Your task to perform on an android device: What's the weather going to be this weekend? Image 0: 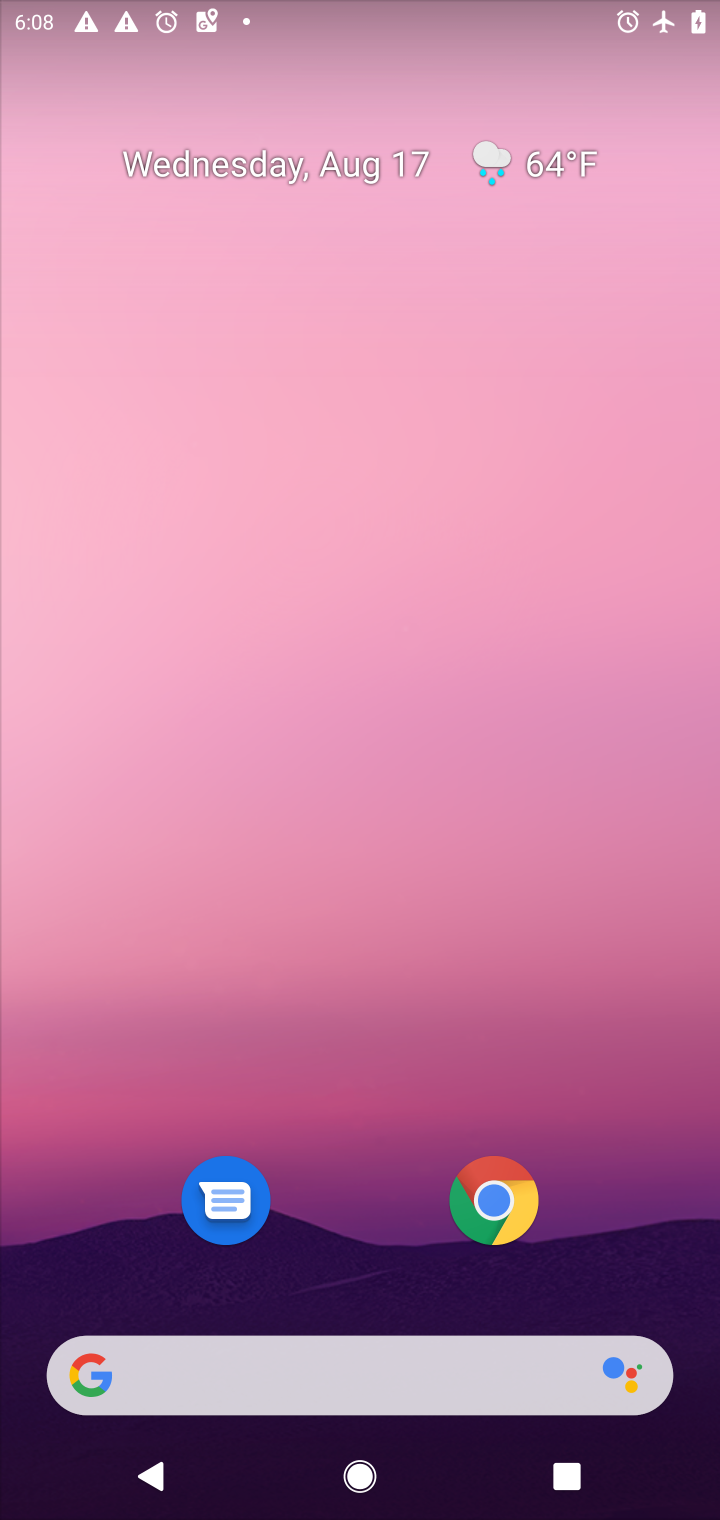
Step 0: click (494, 168)
Your task to perform on an android device: What's the weather going to be this weekend? Image 1: 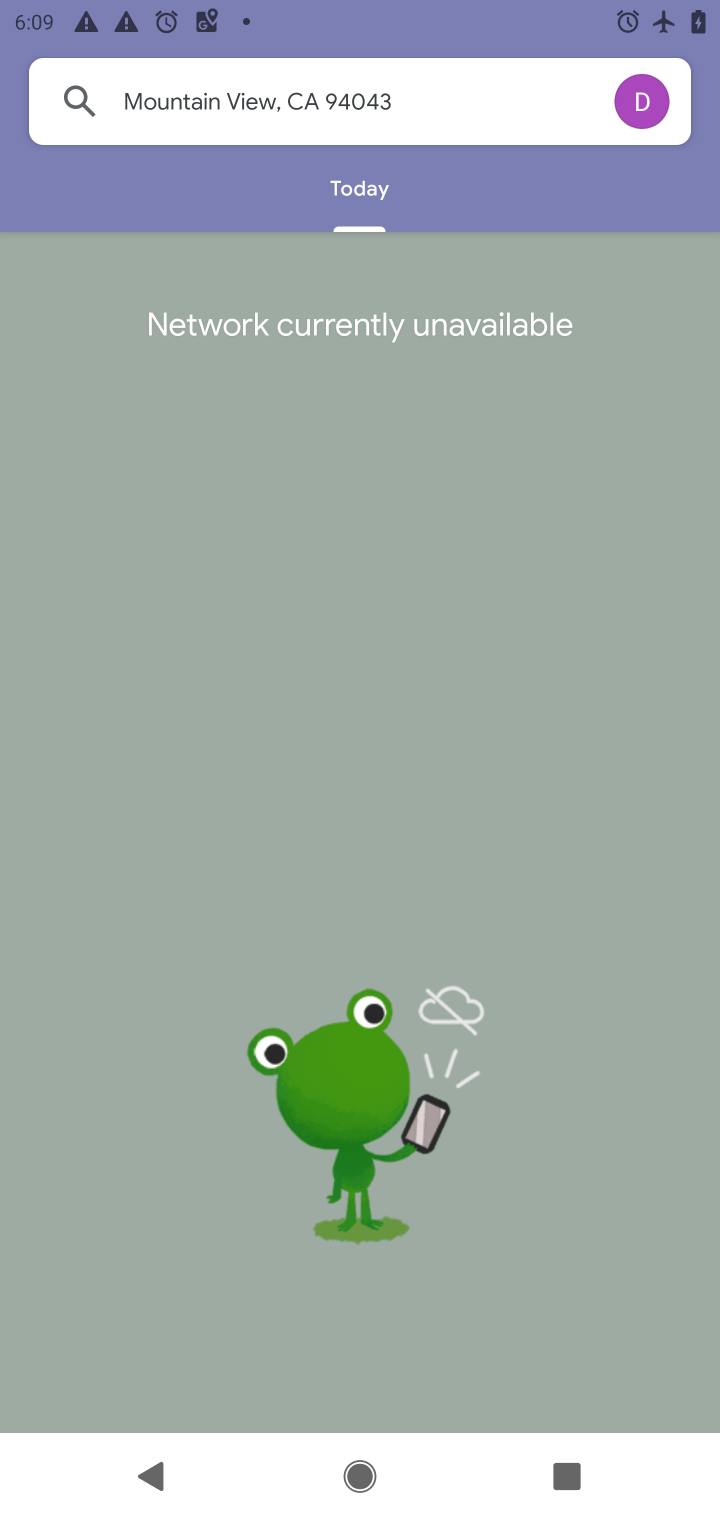
Step 1: task complete